Your task to perform on an android device: Open Chrome and go to the settings page Image 0: 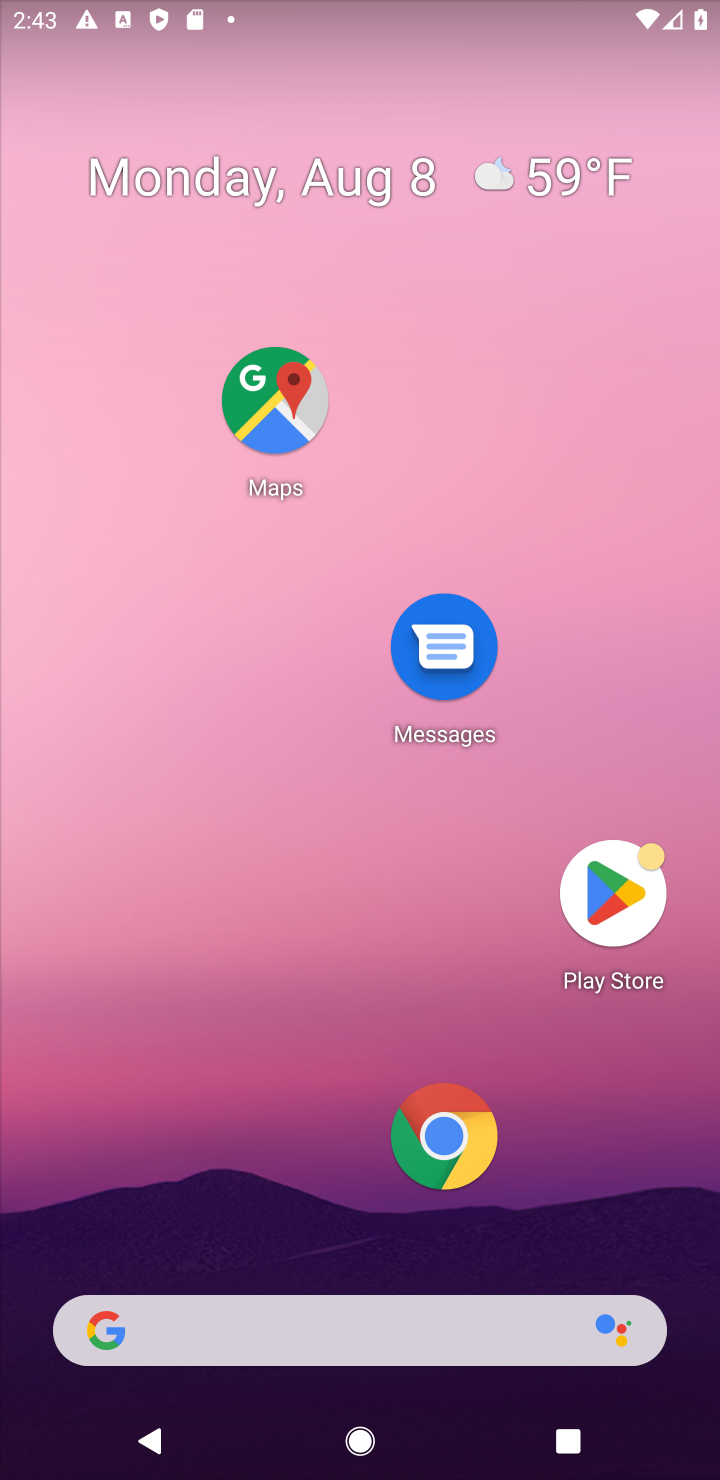
Step 0: click (431, 1130)
Your task to perform on an android device: Open Chrome and go to the settings page Image 1: 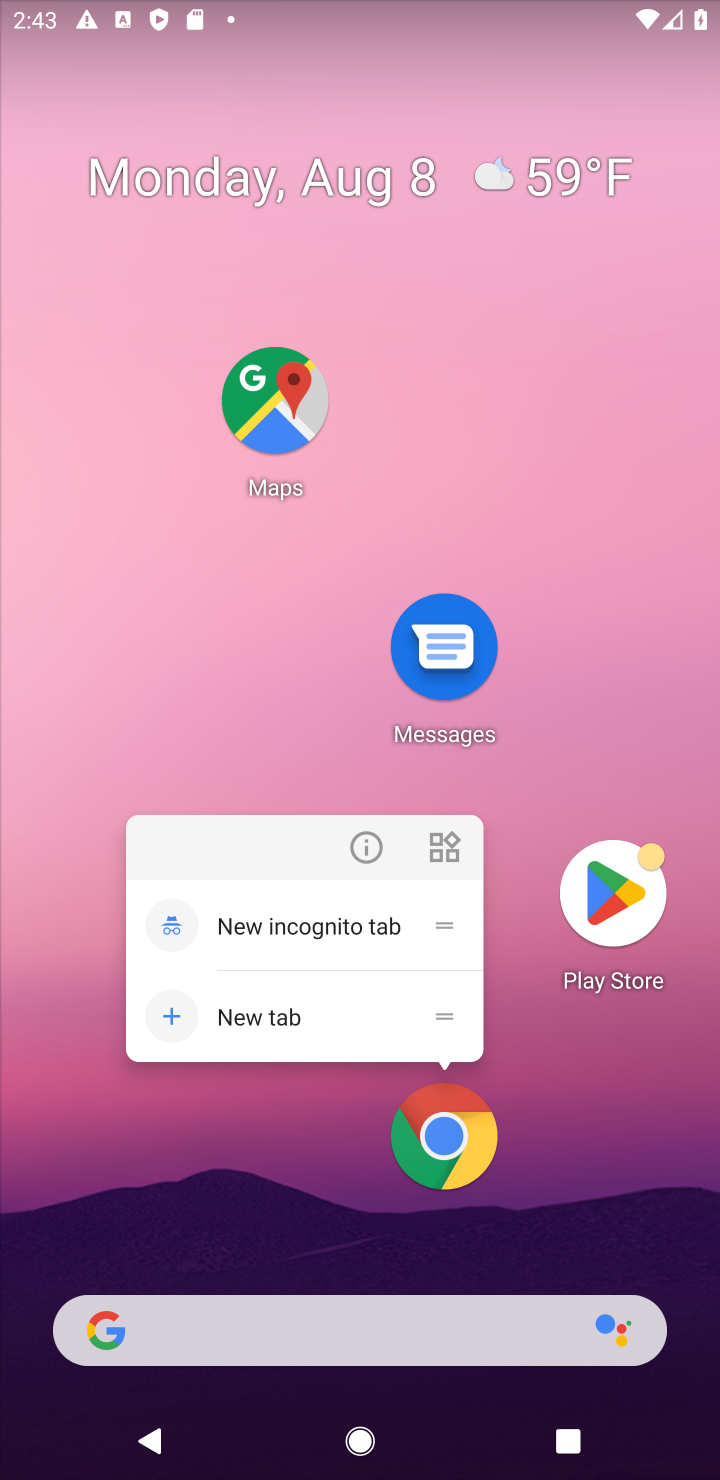
Step 1: click (465, 1129)
Your task to perform on an android device: Open Chrome and go to the settings page Image 2: 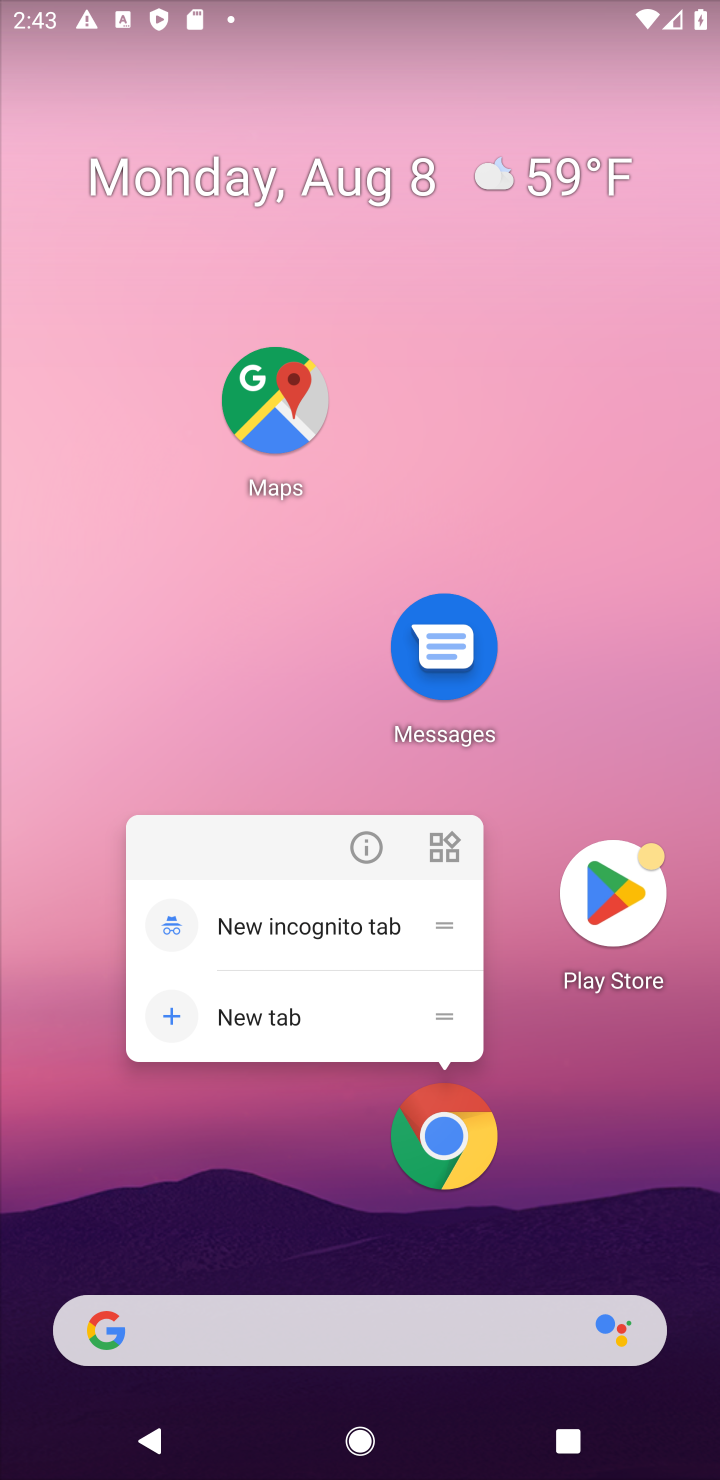
Step 2: click (465, 1129)
Your task to perform on an android device: Open Chrome and go to the settings page Image 3: 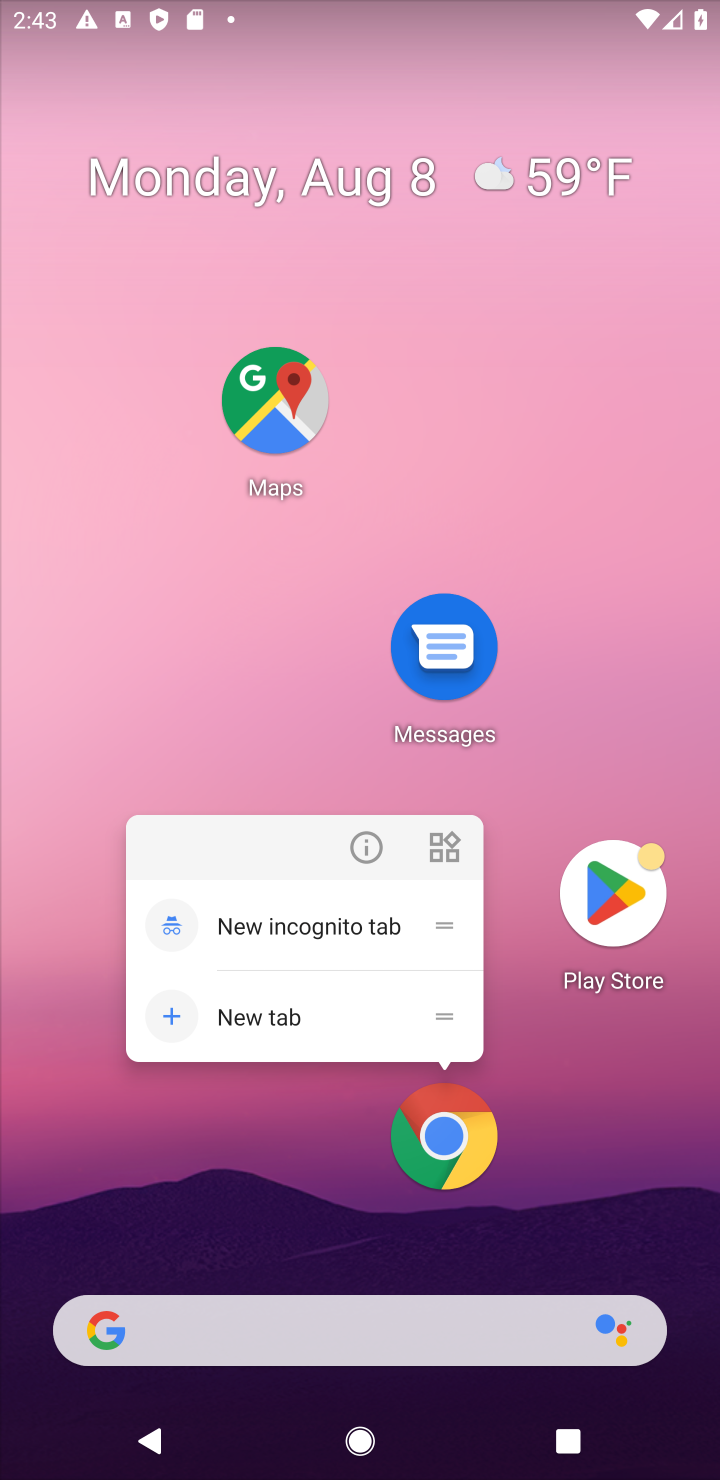
Step 3: task complete